Your task to perform on an android device: What's the price of the TCL TV? Image 0: 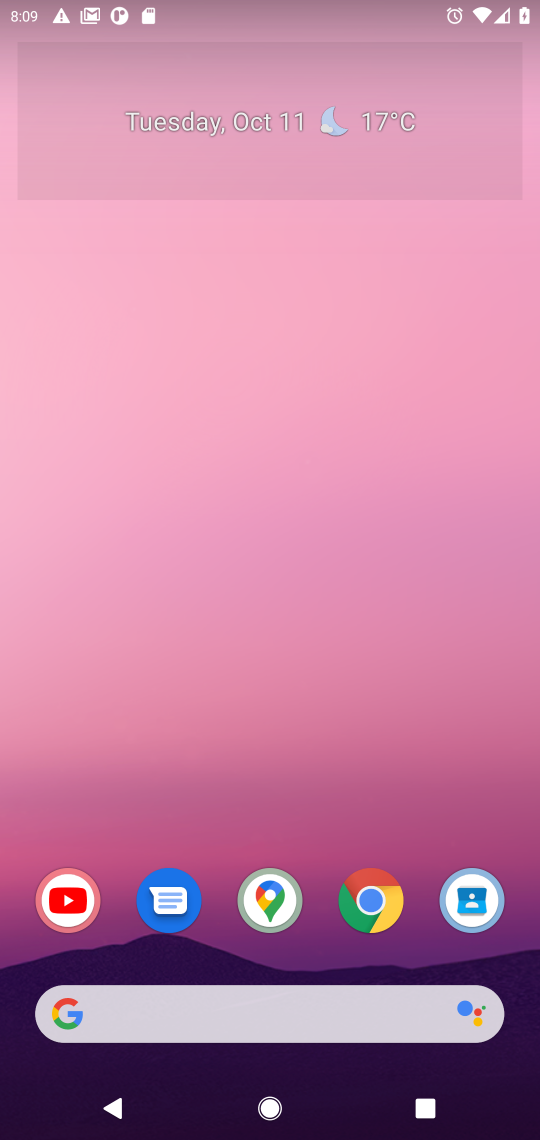
Step 0: click (374, 890)
Your task to perform on an android device: What's the price of the TCL TV? Image 1: 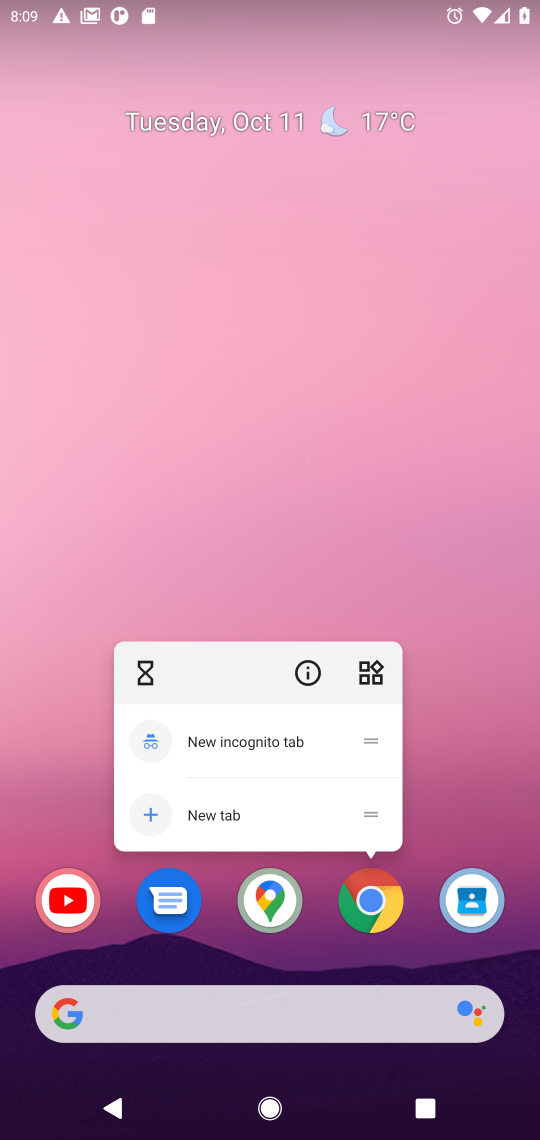
Step 1: click (367, 900)
Your task to perform on an android device: What's the price of the TCL TV? Image 2: 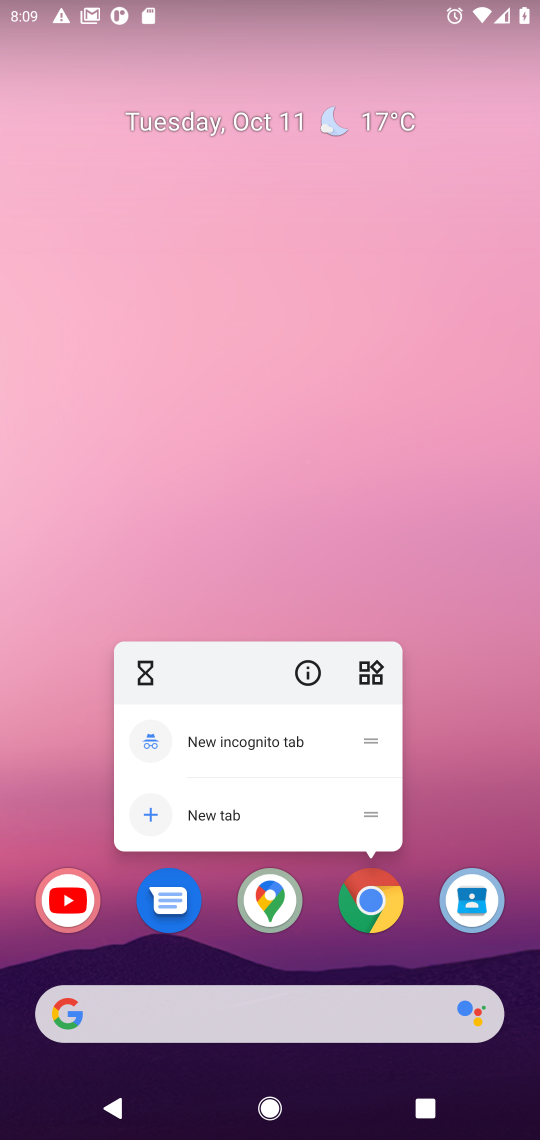
Step 2: click (367, 907)
Your task to perform on an android device: What's the price of the TCL TV? Image 3: 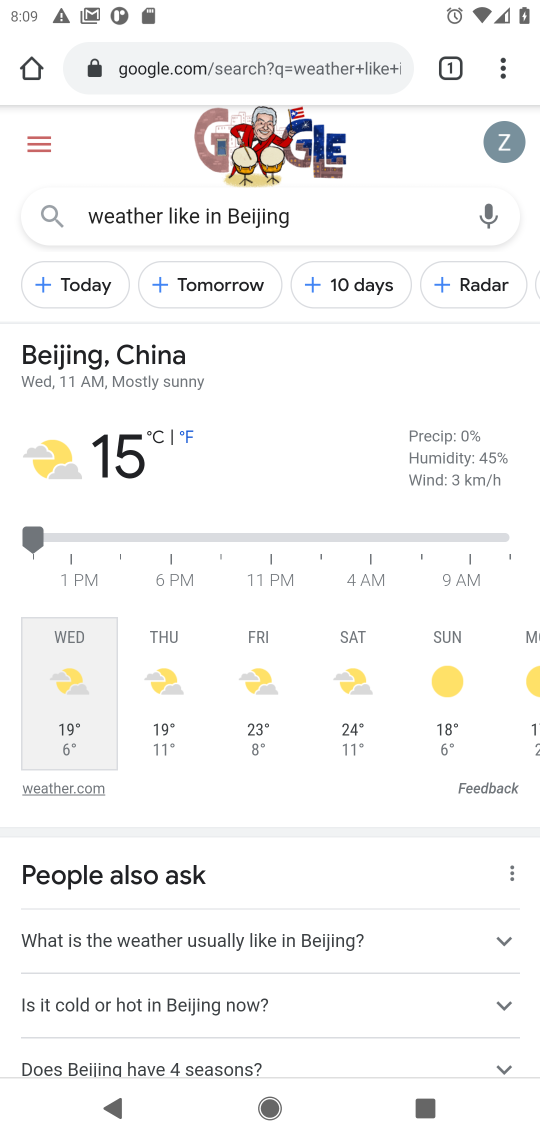
Step 3: click (276, 62)
Your task to perform on an android device: What's the price of the TCL TV? Image 4: 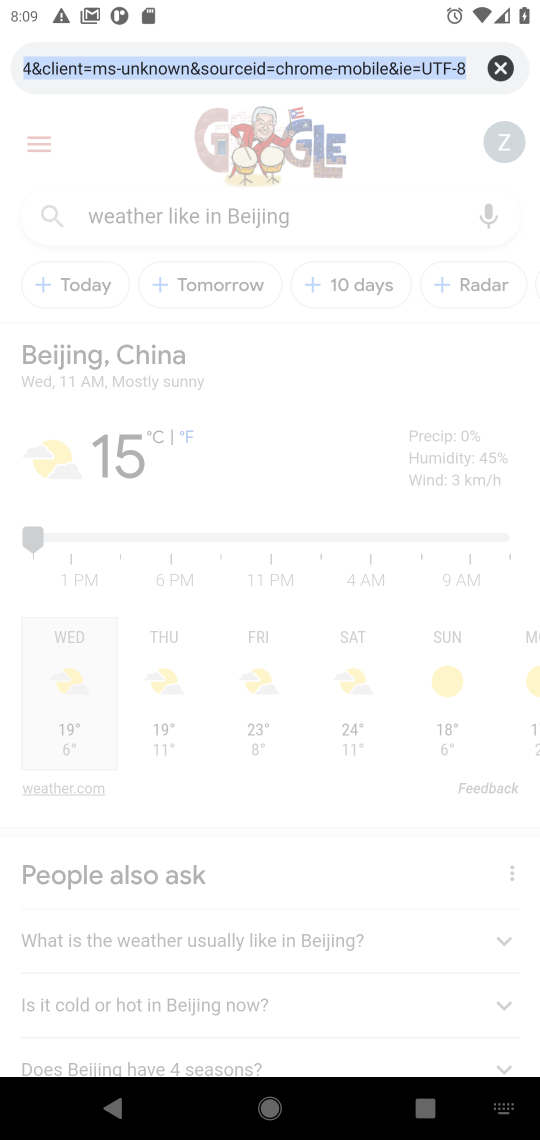
Step 4: click (504, 68)
Your task to perform on an android device: What's the price of the TCL TV? Image 5: 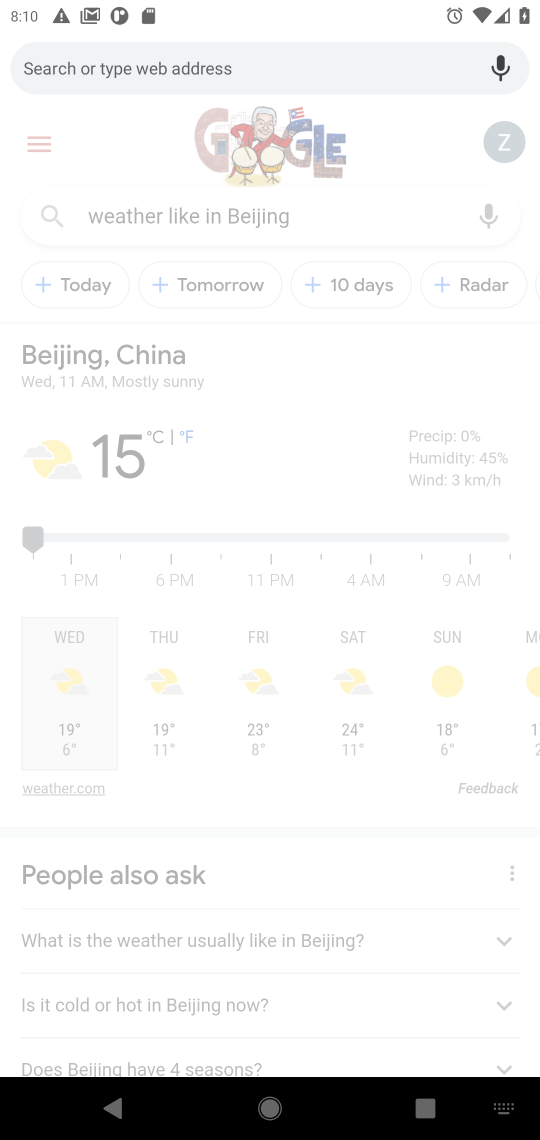
Step 5: type "What's the price of the TCL TV"
Your task to perform on an android device: What's the price of the TCL TV? Image 6: 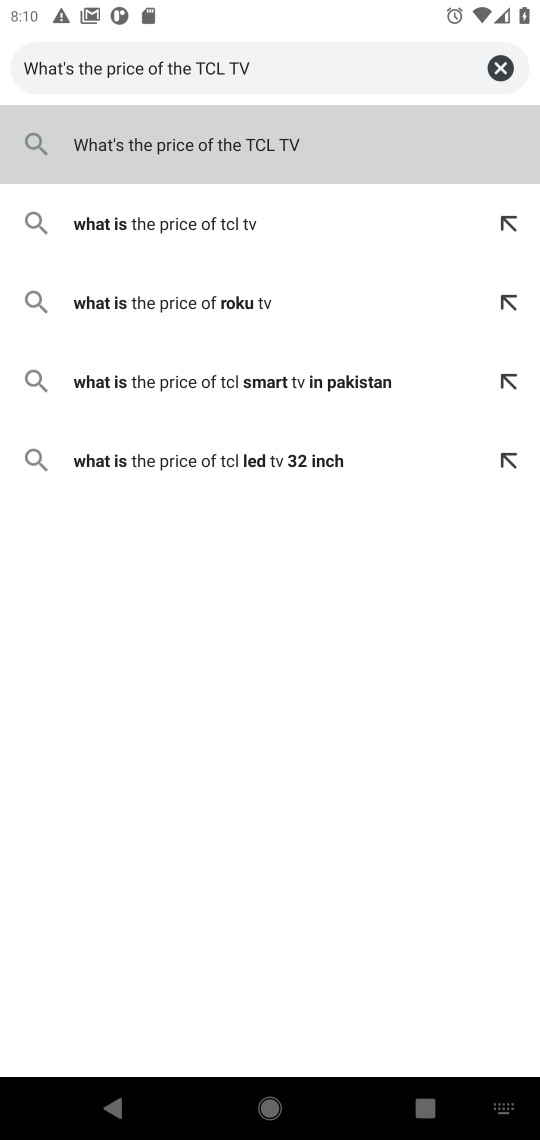
Step 6: press enter
Your task to perform on an android device: What's the price of the TCL TV? Image 7: 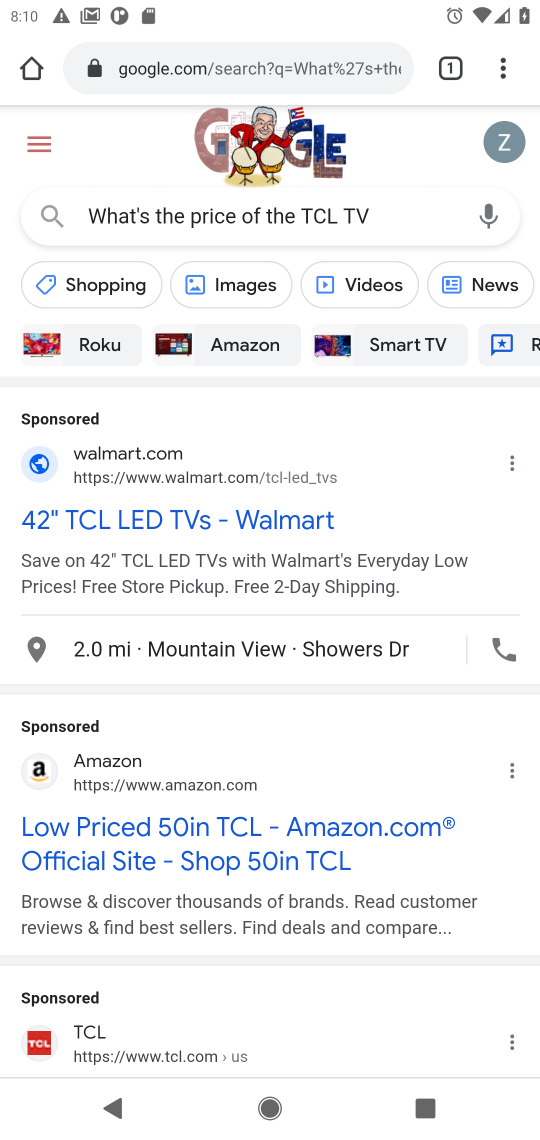
Step 7: drag from (220, 975) to (319, 329)
Your task to perform on an android device: What's the price of the TCL TV? Image 8: 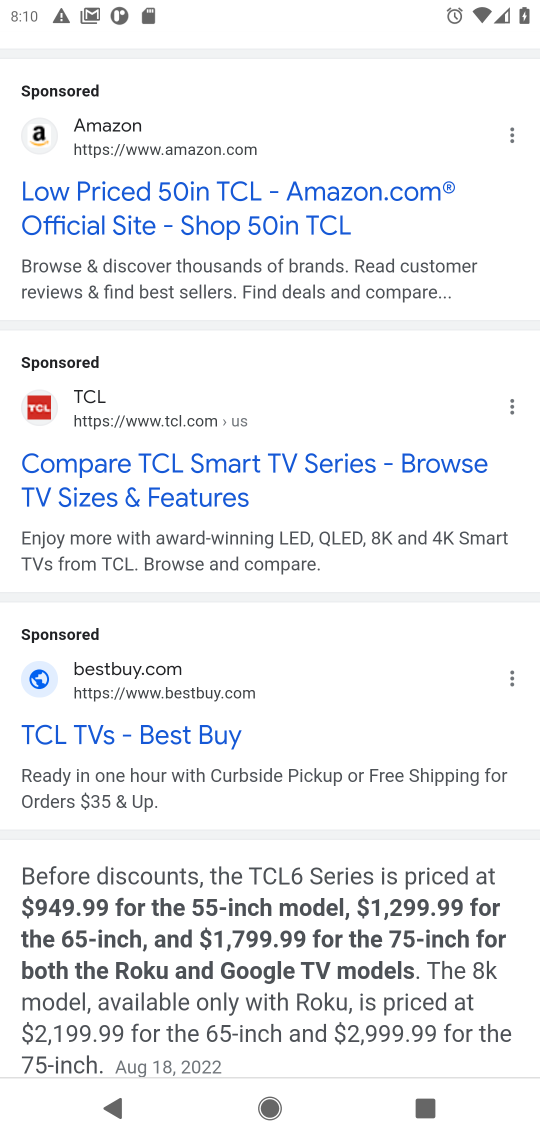
Step 8: drag from (140, 936) to (325, 496)
Your task to perform on an android device: What's the price of the TCL TV? Image 9: 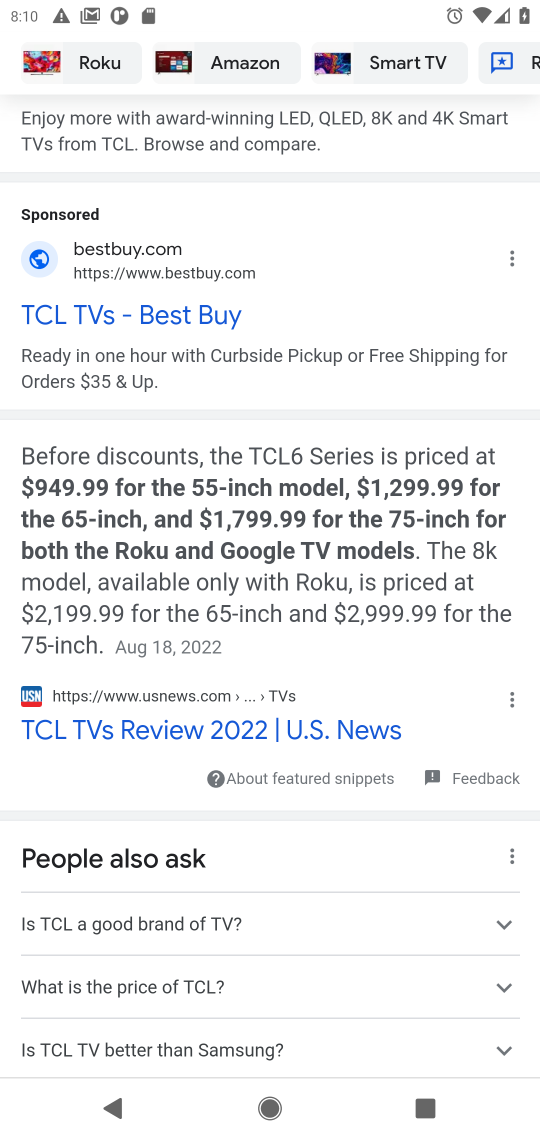
Step 9: click (123, 306)
Your task to perform on an android device: What's the price of the TCL TV? Image 10: 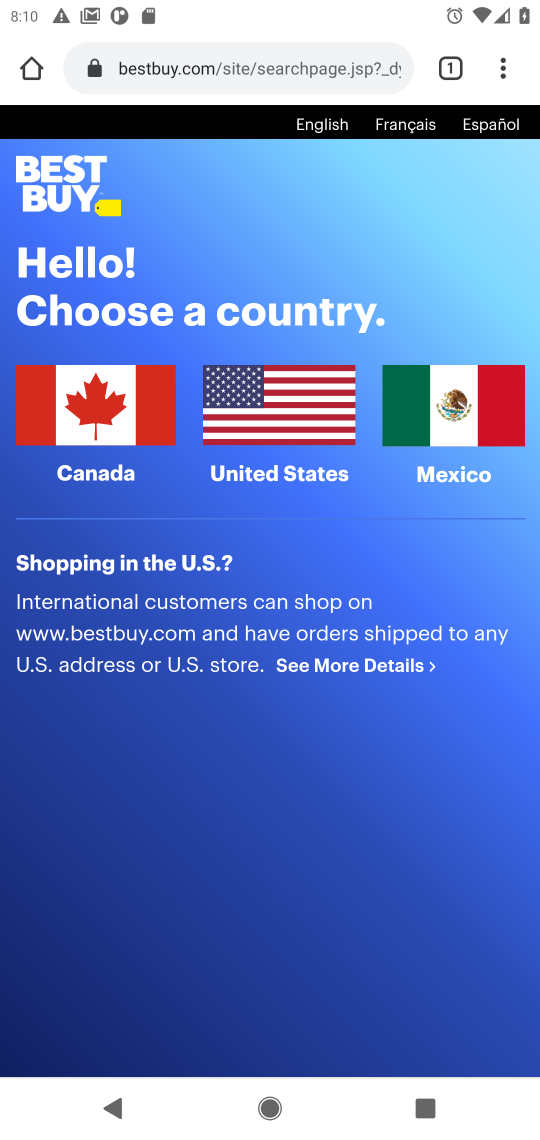
Step 10: click (302, 385)
Your task to perform on an android device: What's the price of the TCL TV? Image 11: 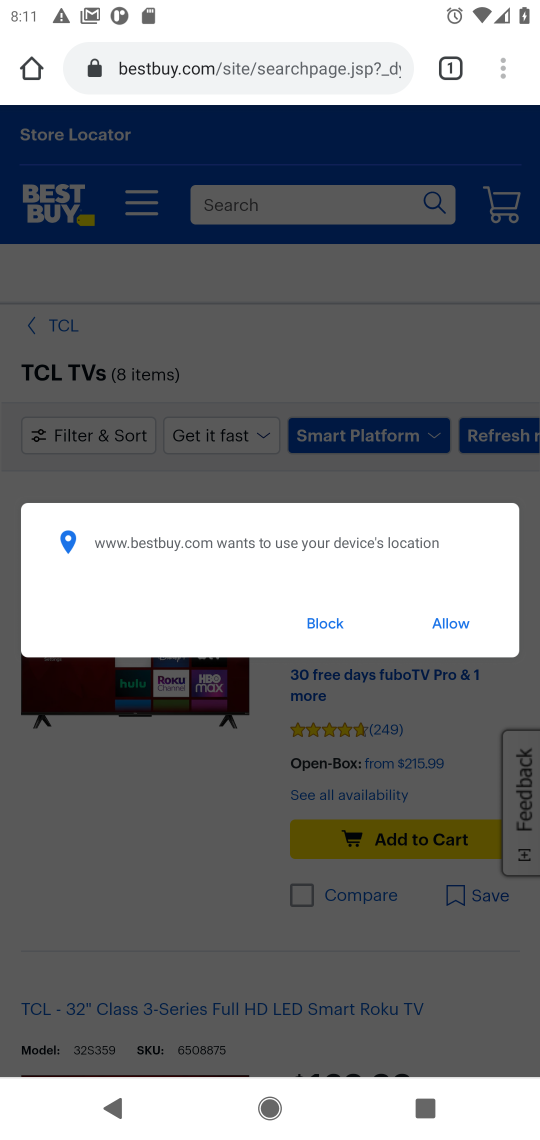
Step 11: click (324, 625)
Your task to perform on an android device: What's the price of the TCL TV? Image 12: 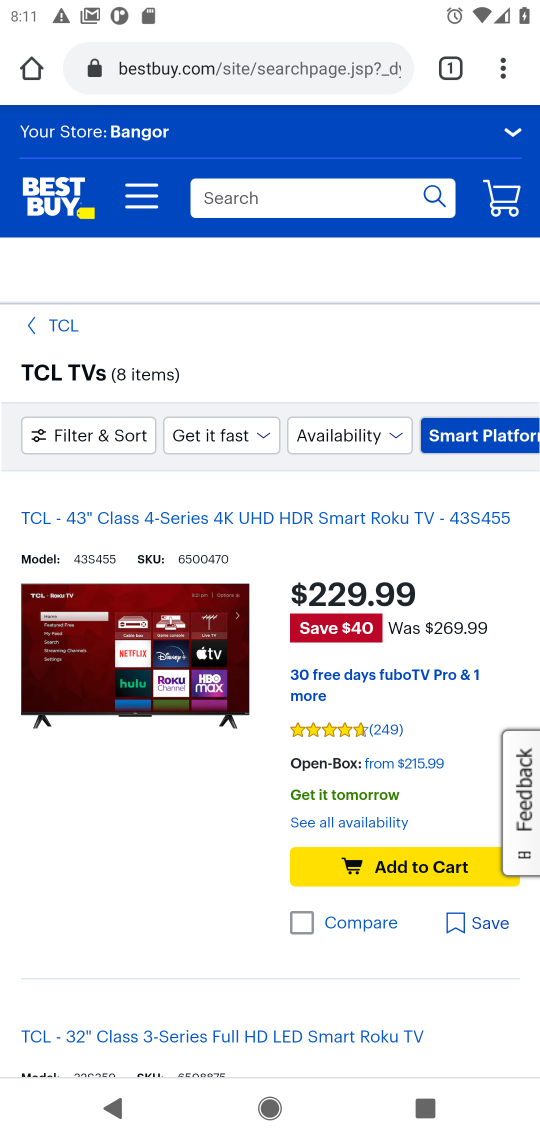
Step 12: task complete